Your task to perform on an android device: turn on bluetooth scan Image 0: 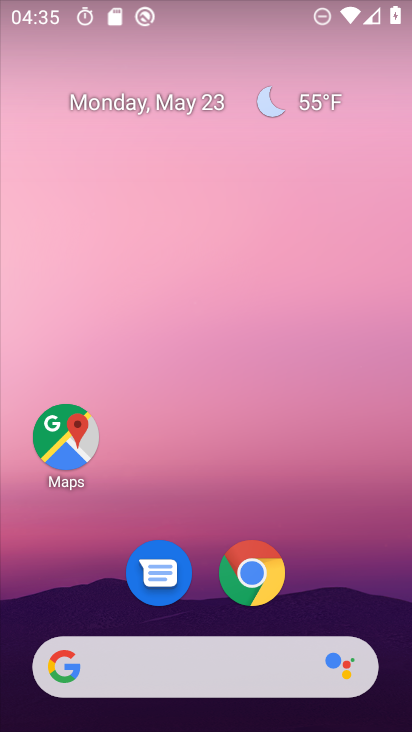
Step 0: drag from (335, 585) to (251, 62)
Your task to perform on an android device: turn on bluetooth scan Image 1: 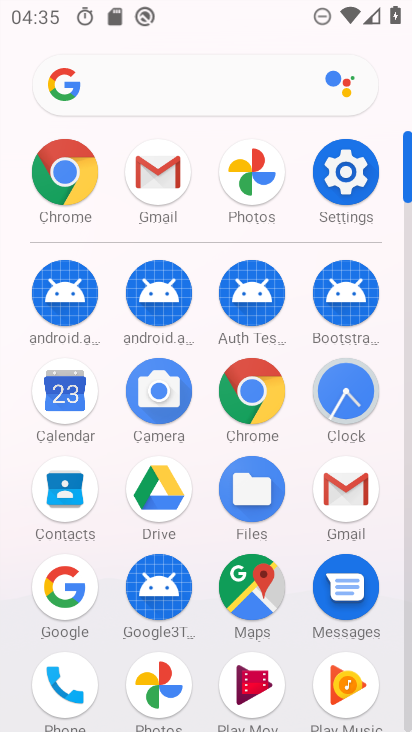
Step 1: click (343, 159)
Your task to perform on an android device: turn on bluetooth scan Image 2: 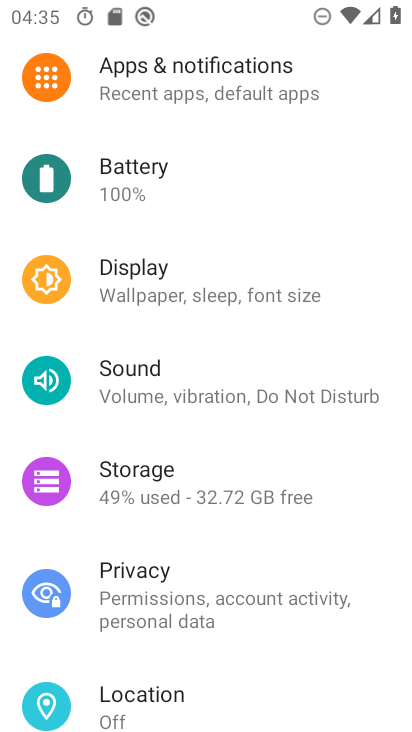
Step 2: drag from (242, 675) to (253, 468)
Your task to perform on an android device: turn on bluetooth scan Image 3: 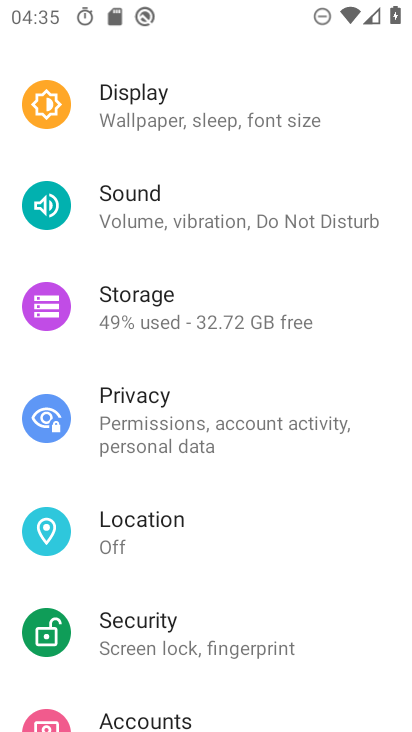
Step 3: click (177, 524)
Your task to perform on an android device: turn on bluetooth scan Image 4: 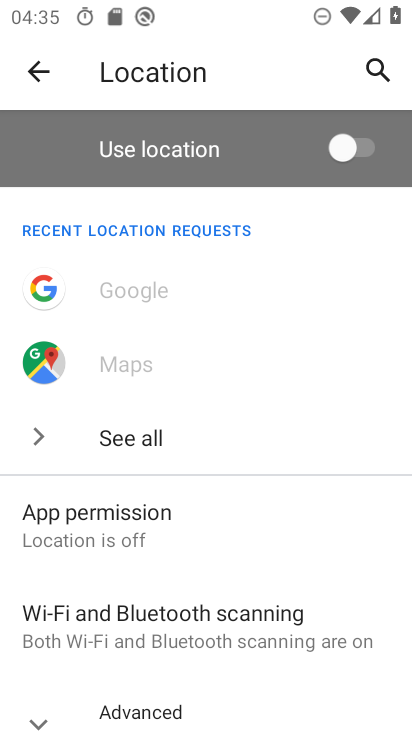
Step 4: click (227, 627)
Your task to perform on an android device: turn on bluetooth scan Image 5: 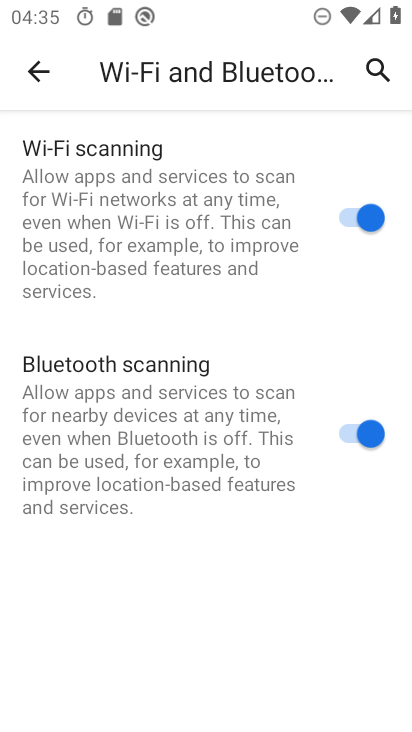
Step 5: task complete